Your task to perform on an android device: Open Google Maps Image 0: 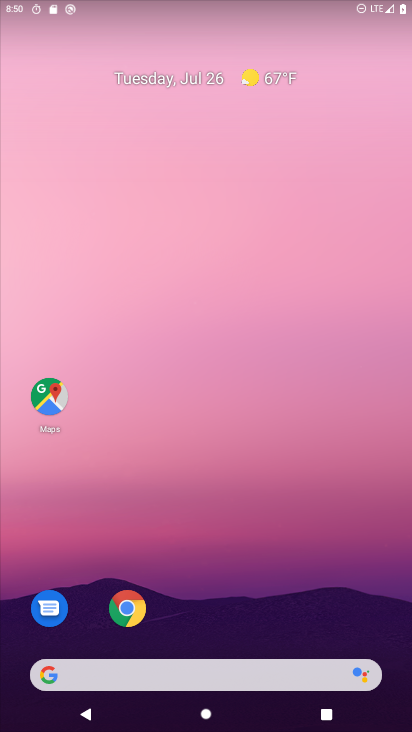
Step 0: click (45, 394)
Your task to perform on an android device: Open Google Maps Image 1: 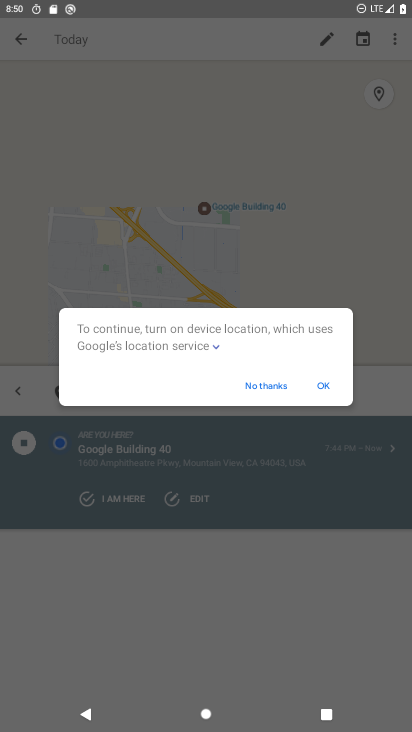
Step 1: click (261, 386)
Your task to perform on an android device: Open Google Maps Image 2: 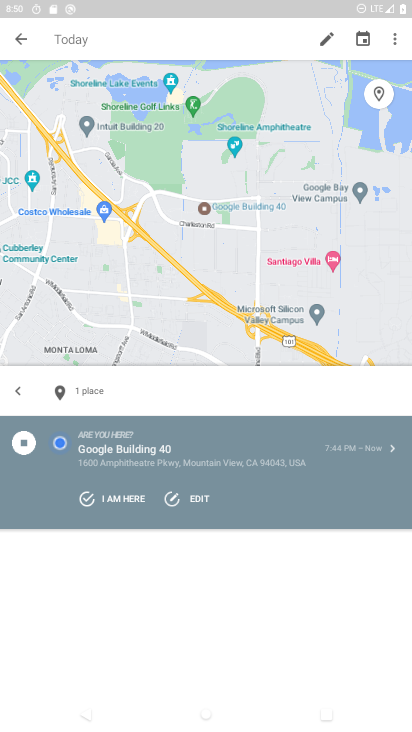
Step 2: click (20, 33)
Your task to perform on an android device: Open Google Maps Image 3: 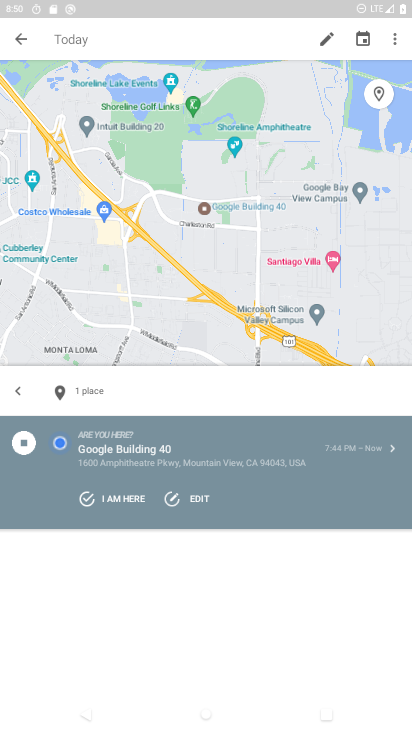
Step 3: task complete